Your task to perform on an android device: change your default location settings in chrome Image 0: 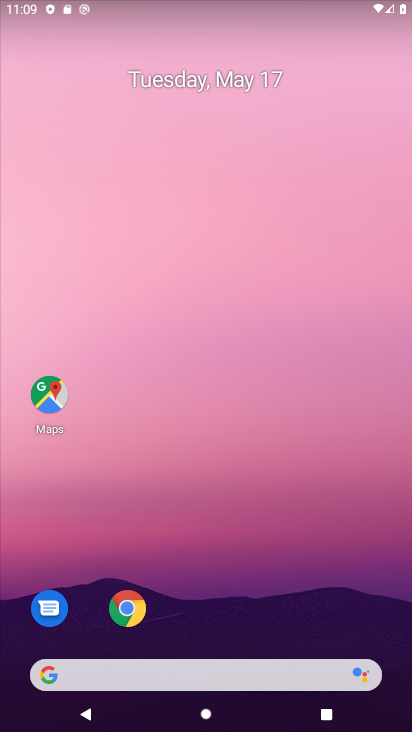
Step 0: drag from (221, 609) to (261, 1)
Your task to perform on an android device: change your default location settings in chrome Image 1: 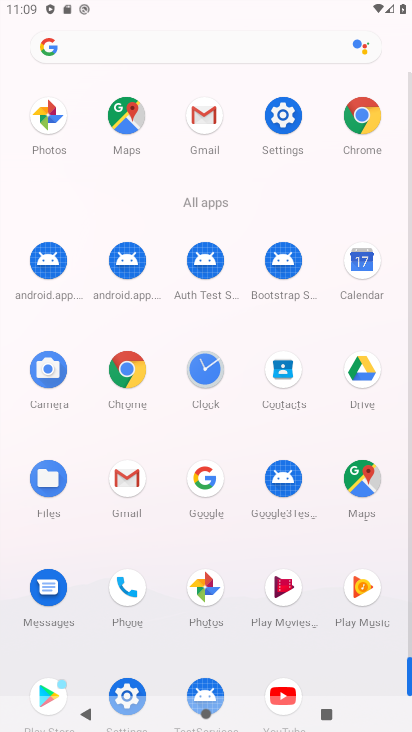
Step 1: click (134, 382)
Your task to perform on an android device: change your default location settings in chrome Image 2: 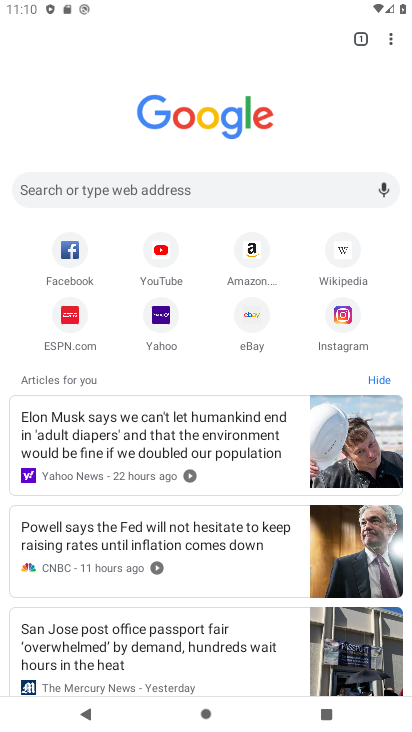
Step 2: click (398, 34)
Your task to perform on an android device: change your default location settings in chrome Image 3: 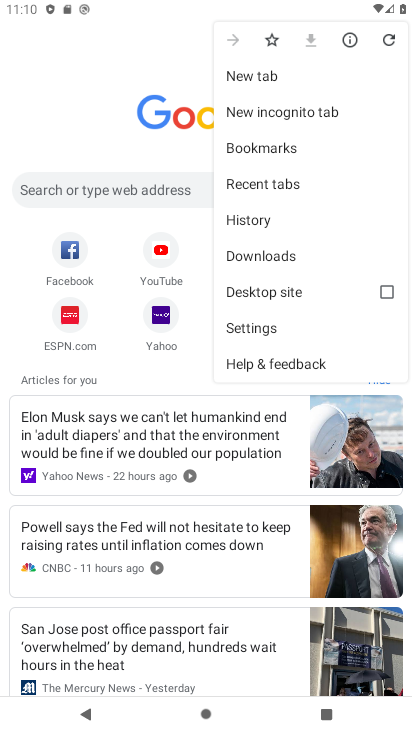
Step 3: click (265, 332)
Your task to perform on an android device: change your default location settings in chrome Image 4: 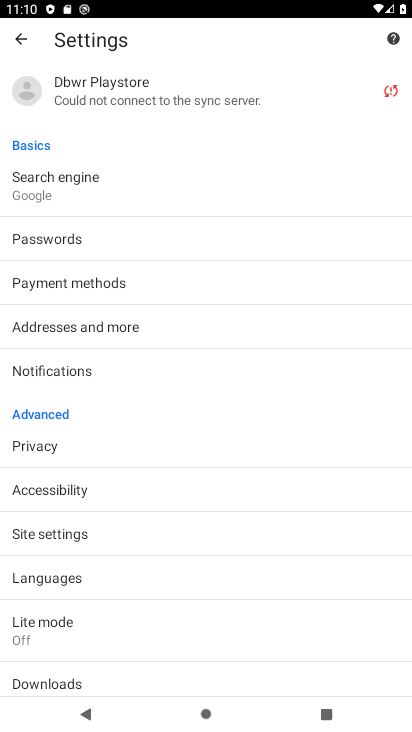
Step 4: drag from (97, 497) to (122, 364)
Your task to perform on an android device: change your default location settings in chrome Image 5: 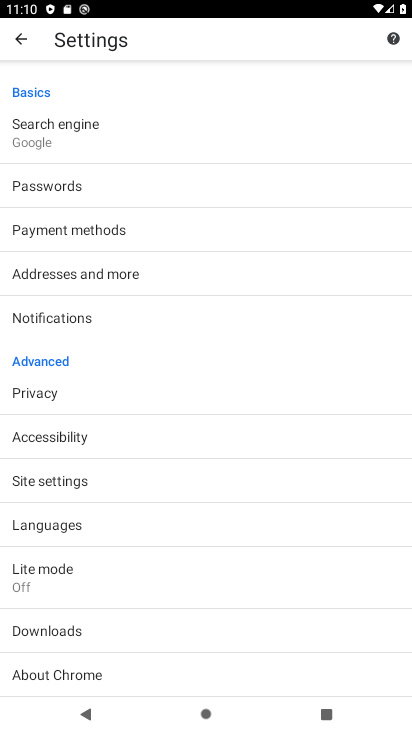
Step 5: click (64, 483)
Your task to perform on an android device: change your default location settings in chrome Image 6: 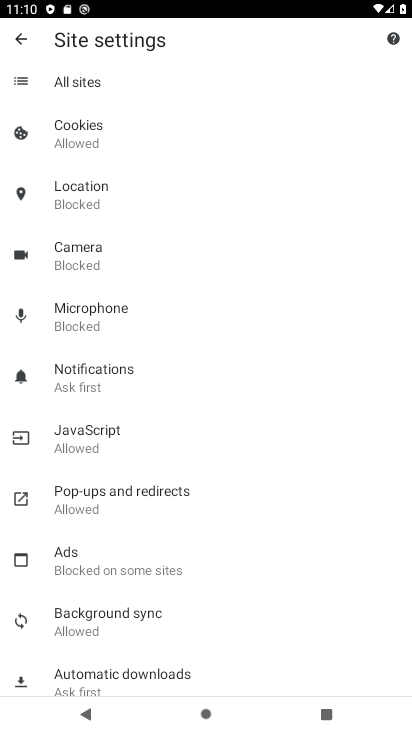
Step 6: drag from (95, 600) to (125, 408)
Your task to perform on an android device: change your default location settings in chrome Image 7: 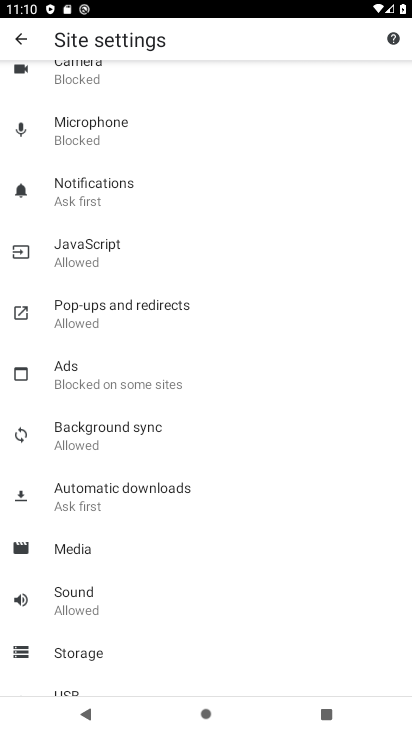
Step 7: drag from (112, 488) to (84, 620)
Your task to perform on an android device: change your default location settings in chrome Image 8: 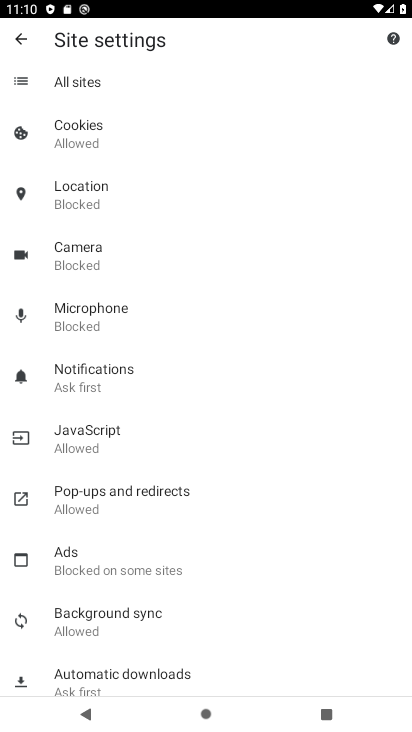
Step 8: click (84, 208)
Your task to perform on an android device: change your default location settings in chrome Image 9: 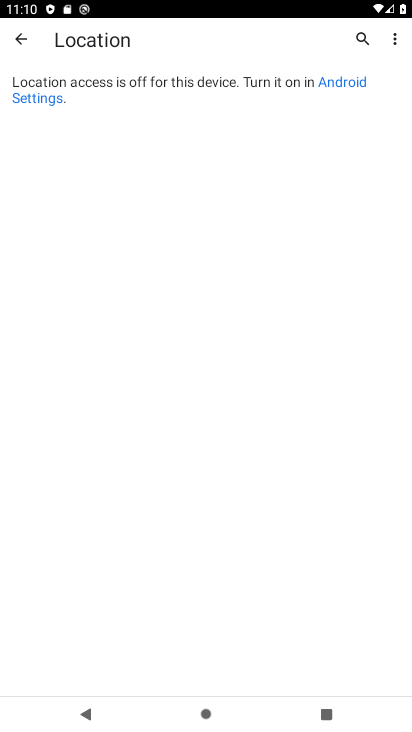
Step 9: click (347, 73)
Your task to perform on an android device: change your default location settings in chrome Image 10: 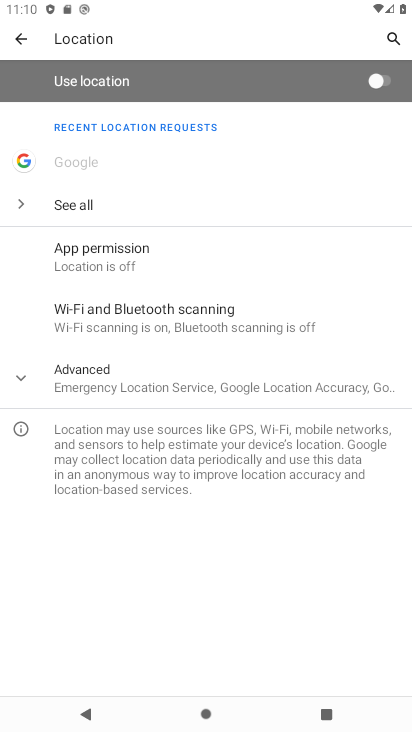
Step 10: click (356, 82)
Your task to perform on an android device: change your default location settings in chrome Image 11: 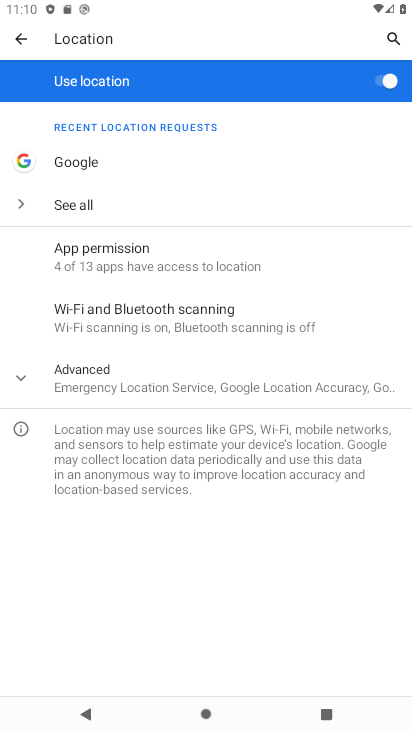
Step 11: task complete